Your task to perform on an android device: choose inbox layout in the gmail app Image 0: 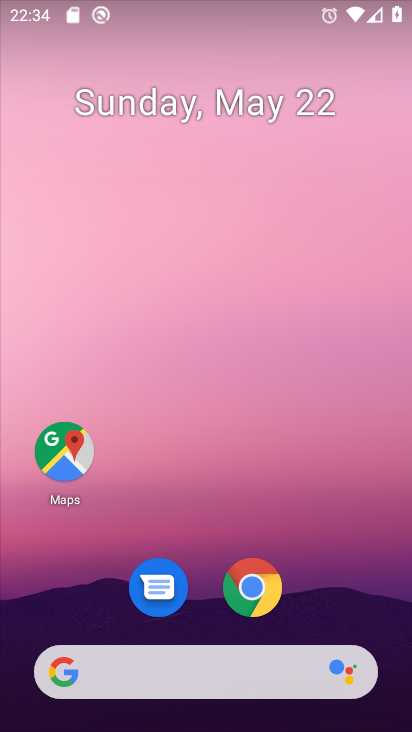
Step 0: drag from (211, 507) to (283, 1)
Your task to perform on an android device: choose inbox layout in the gmail app Image 1: 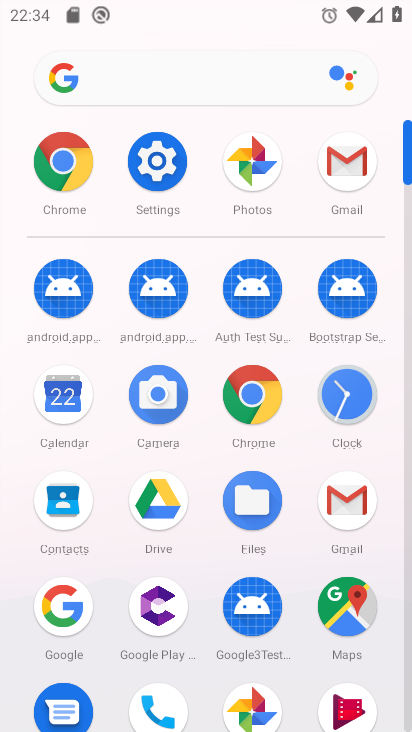
Step 1: click (343, 164)
Your task to perform on an android device: choose inbox layout in the gmail app Image 2: 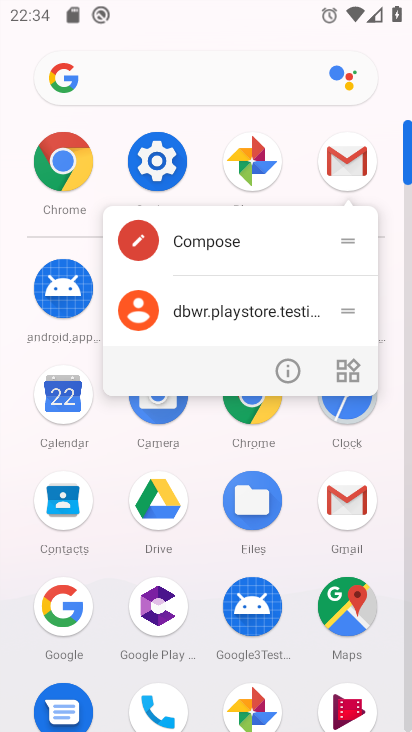
Step 2: click (345, 152)
Your task to perform on an android device: choose inbox layout in the gmail app Image 3: 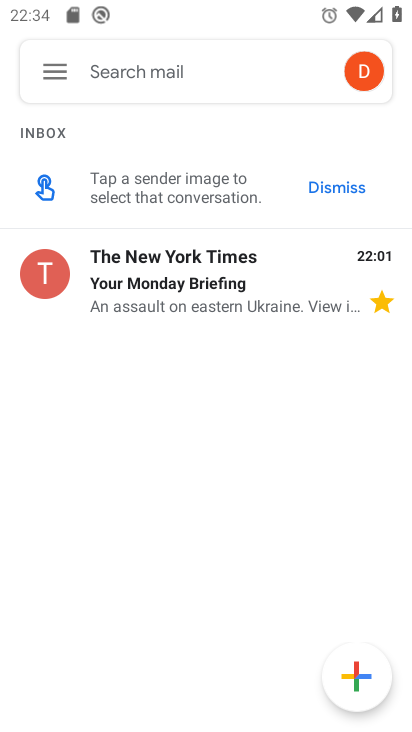
Step 3: click (52, 66)
Your task to perform on an android device: choose inbox layout in the gmail app Image 4: 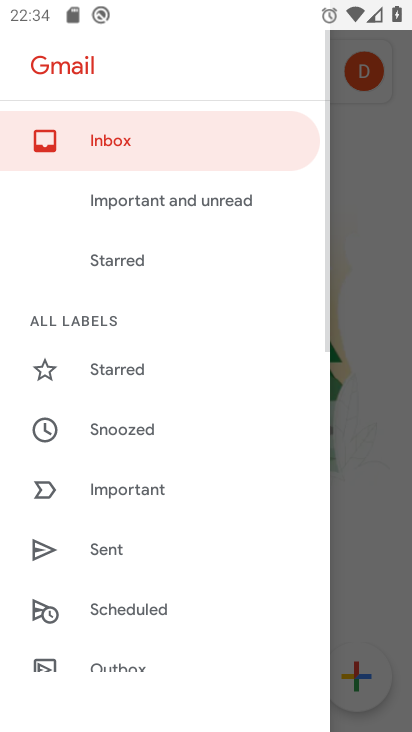
Step 4: drag from (125, 542) to (213, 192)
Your task to perform on an android device: choose inbox layout in the gmail app Image 5: 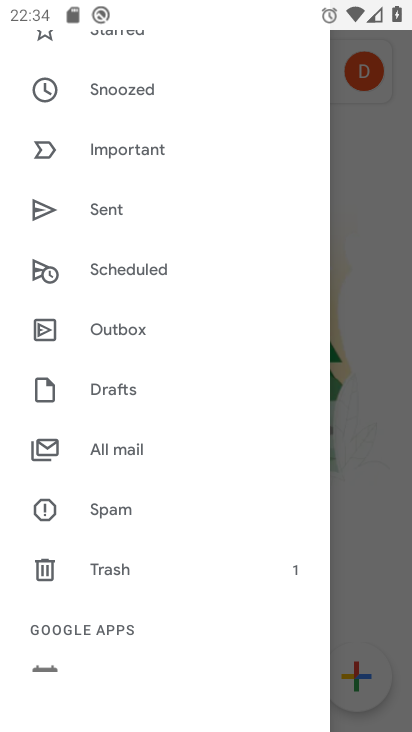
Step 5: drag from (140, 561) to (211, 290)
Your task to perform on an android device: choose inbox layout in the gmail app Image 6: 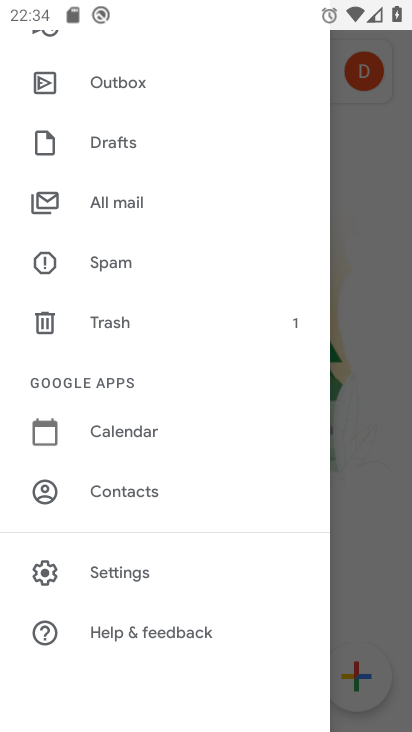
Step 6: click (152, 571)
Your task to perform on an android device: choose inbox layout in the gmail app Image 7: 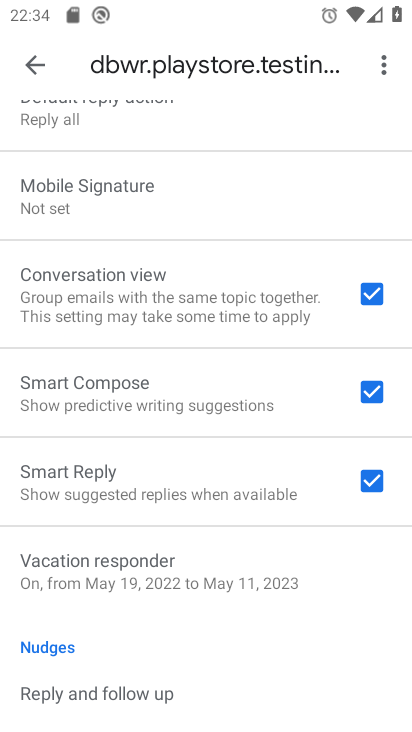
Step 7: drag from (191, 278) to (179, 611)
Your task to perform on an android device: choose inbox layout in the gmail app Image 8: 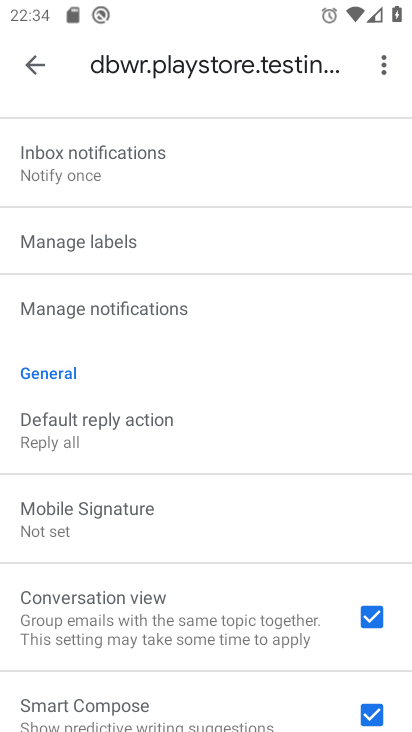
Step 8: drag from (238, 257) to (252, 597)
Your task to perform on an android device: choose inbox layout in the gmail app Image 9: 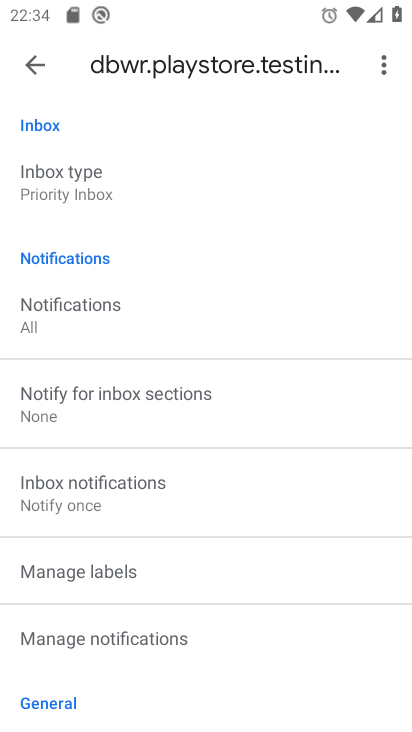
Step 9: click (98, 180)
Your task to perform on an android device: choose inbox layout in the gmail app Image 10: 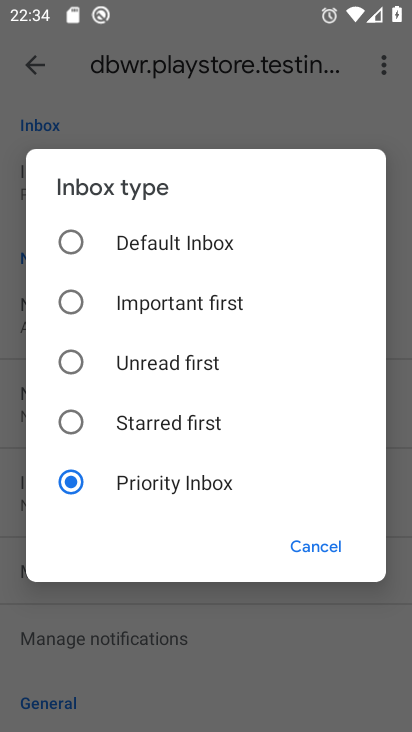
Step 10: click (61, 243)
Your task to perform on an android device: choose inbox layout in the gmail app Image 11: 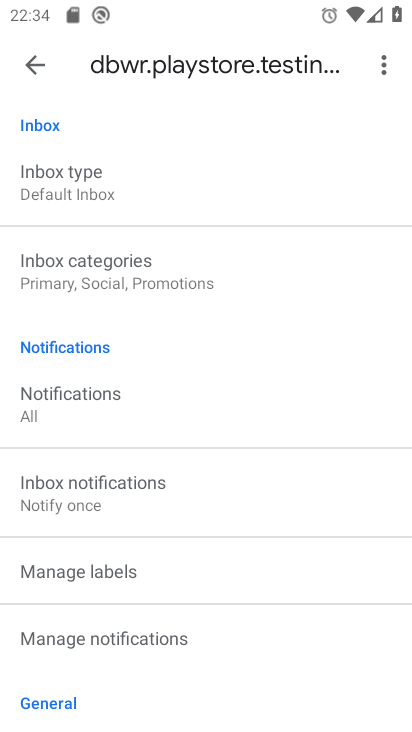
Step 11: task complete